Your task to perform on an android device: Search for the best pizza restaurants on Maps Image 0: 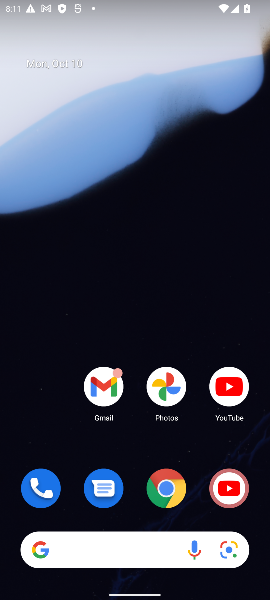
Step 0: drag from (129, 454) to (163, 25)
Your task to perform on an android device: Search for the best pizza restaurants on Maps Image 1: 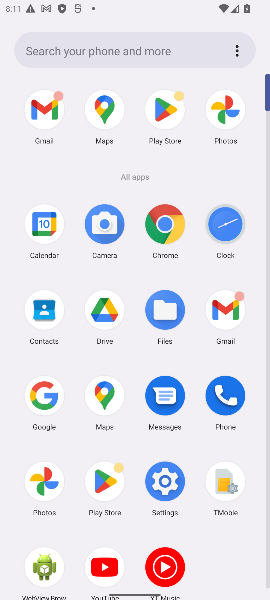
Step 1: click (96, 400)
Your task to perform on an android device: Search for the best pizza restaurants on Maps Image 2: 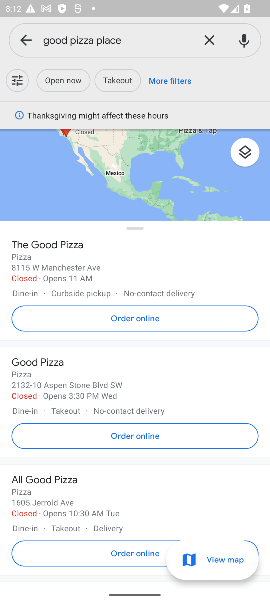
Step 2: click (108, 46)
Your task to perform on an android device: Search for the best pizza restaurants on Maps Image 3: 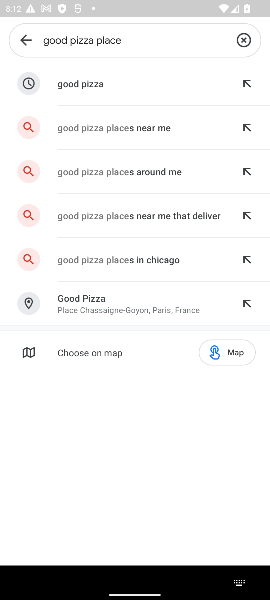
Step 3: click (250, 41)
Your task to perform on an android device: Search for the best pizza restaurants on Maps Image 4: 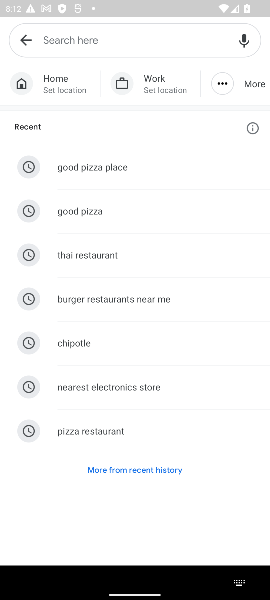
Step 4: type "best pizza restaurant "
Your task to perform on an android device: Search for the best pizza restaurants on Maps Image 5: 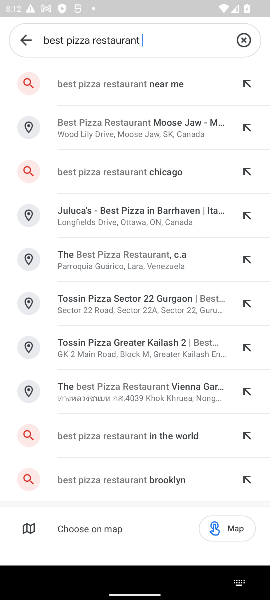
Step 5: press enter
Your task to perform on an android device: Search for the best pizza restaurants on Maps Image 6: 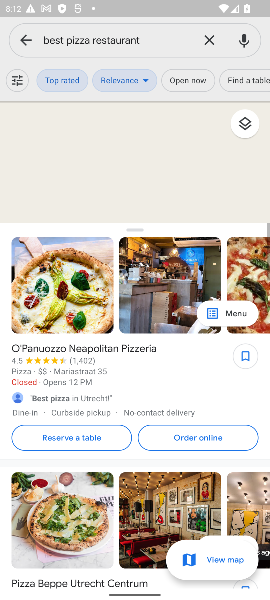
Step 6: press enter
Your task to perform on an android device: Search for the best pizza restaurants on Maps Image 7: 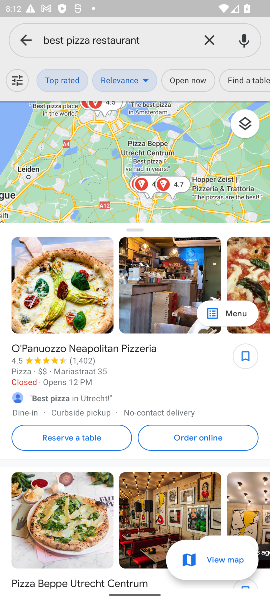
Step 7: task complete